Your task to perform on an android device: Open Google Chrome and open the bookmarks view Image 0: 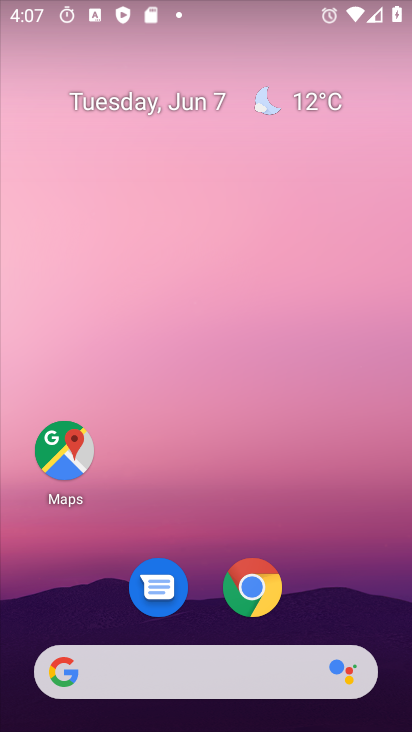
Step 0: drag from (253, 290) to (291, 29)
Your task to perform on an android device: Open Google Chrome and open the bookmarks view Image 1: 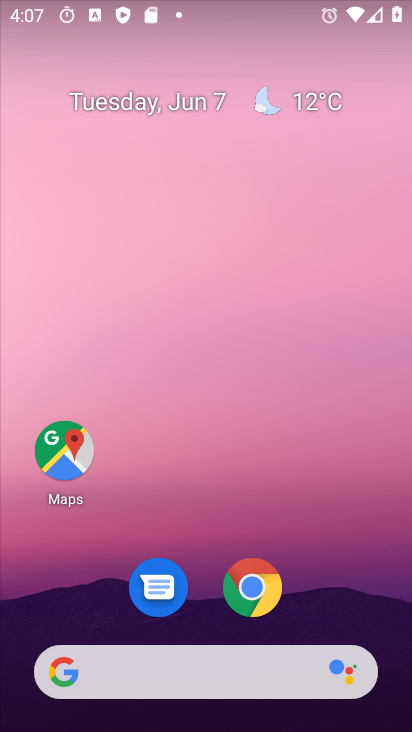
Step 1: drag from (236, 623) to (259, 3)
Your task to perform on an android device: Open Google Chrome and open the bookmarks view Image 2: 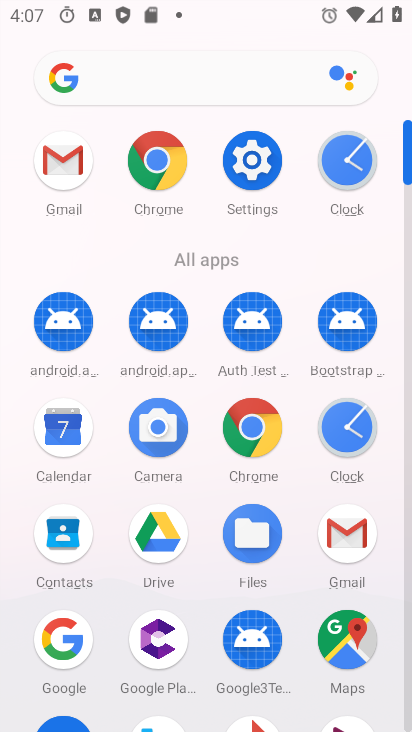
Step 2: click (262, 447)
Your task to perform on an android device: Open Google Chrome and open the bookmarks view Image 3: 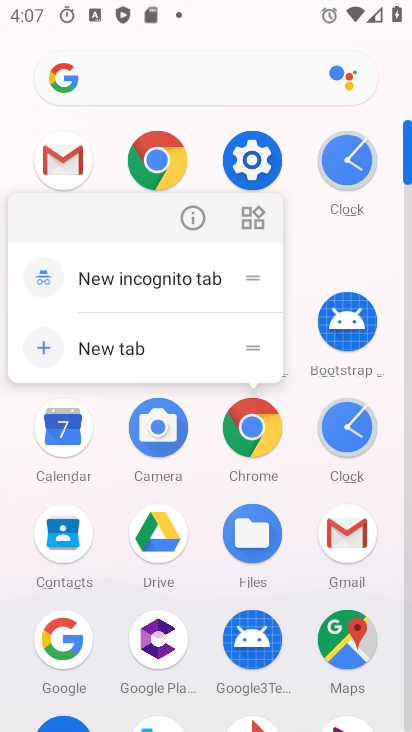
Step 3: click (284, 434)
Your task to perform on an android device: Open Google Chrome and open the bookmarks view Image 4: 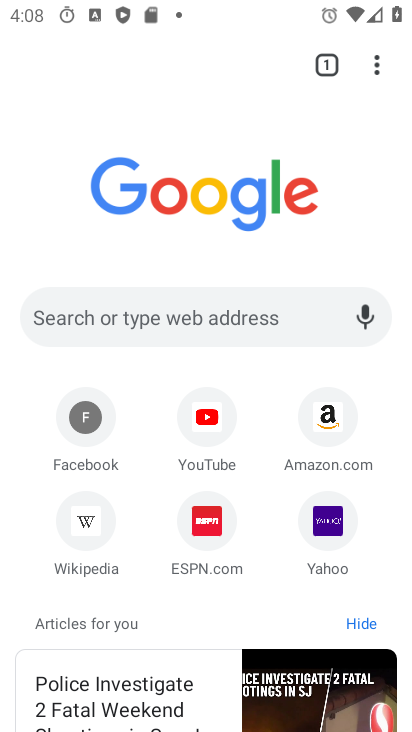
Step 4: click (380, 59)
Your task to perform on an android device: Open Google Chrome and open the bookmarks view Image 5: 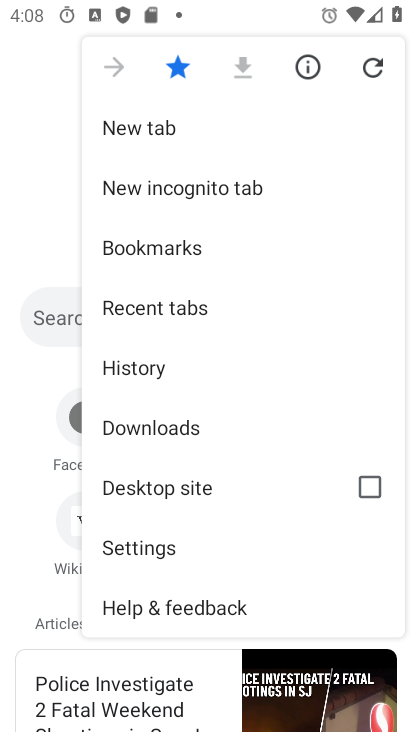
Step 5: click (189, 248)
Your task to perform on an android device: Open Google Chrome and open the bookmarks view Image 6: 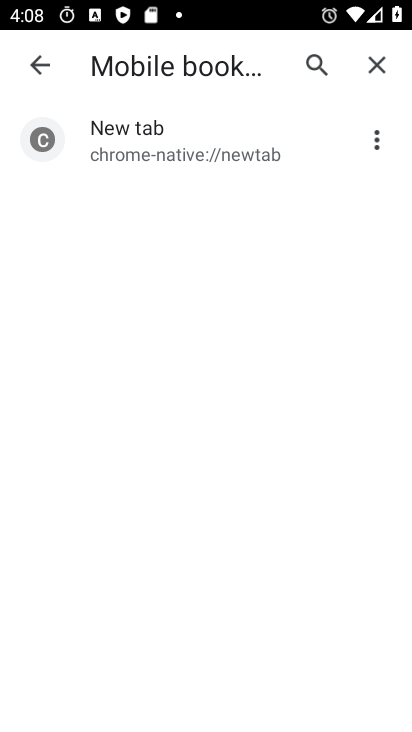
Step 6: task complete